Your task to perform on an android device: find snoozed emails in the gmail app Image 0: 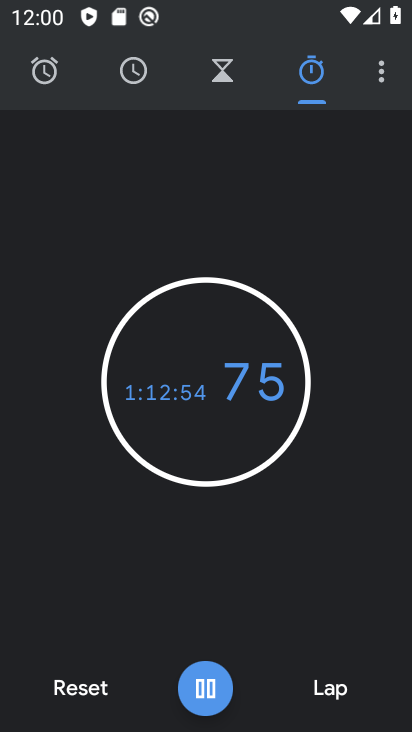
Step 0: press home button
Your task to perform on an android device: find snoozed emails in the gmail app Image 1: 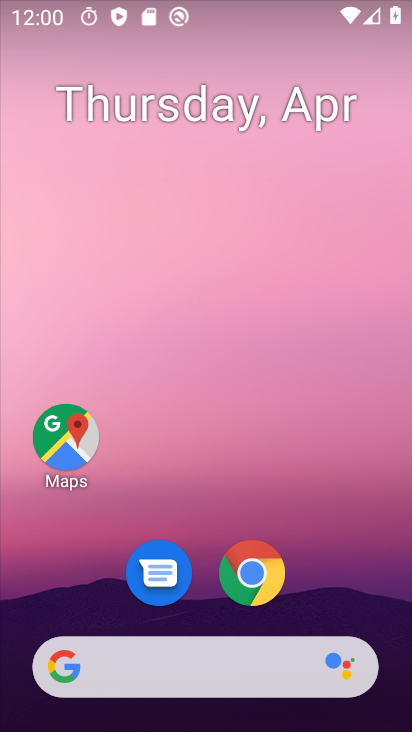
Step 1: click (313, 168)
Your task to perform on an android device: find snoozed emails in the gmail app Image 2: 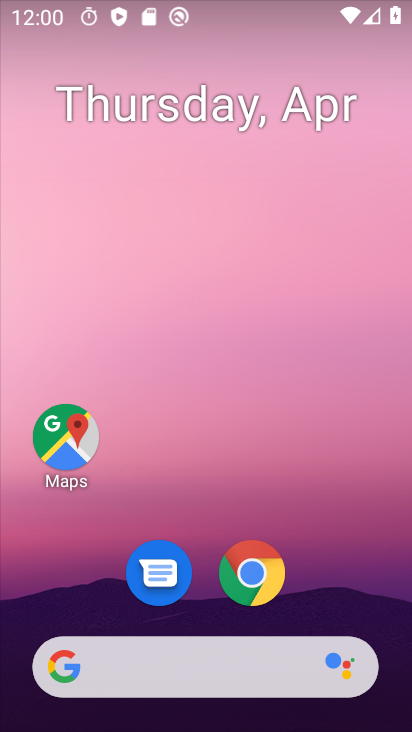
Step 2: drag from (370, 571) to (335, 247)
Your task to perform on an android device: find snoozed emails in the gmail app Image 3: 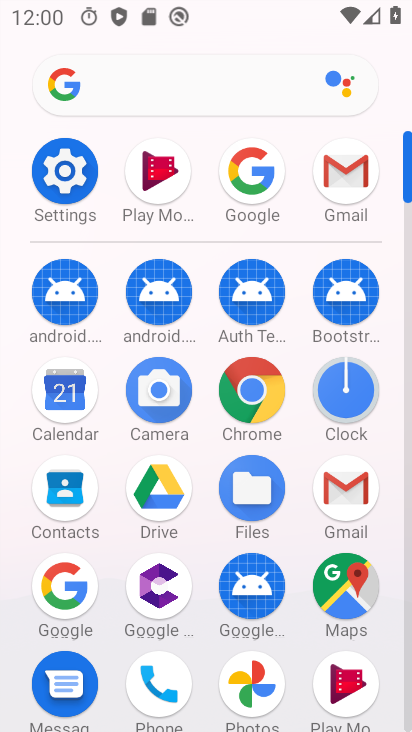
Step 3: click (328, 182)
Your task to perform on an android device: find snoozed emails in the gmail app Image 4: 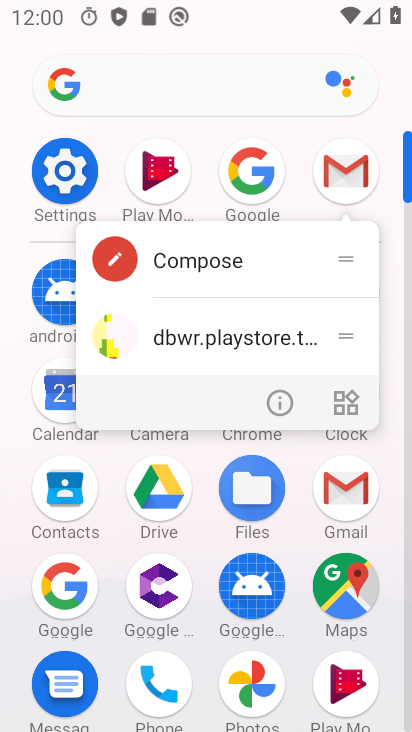
Step 4: click (329, 180)
Your task to perform on an android device: find snoozed emails in the gmail app Image 5: 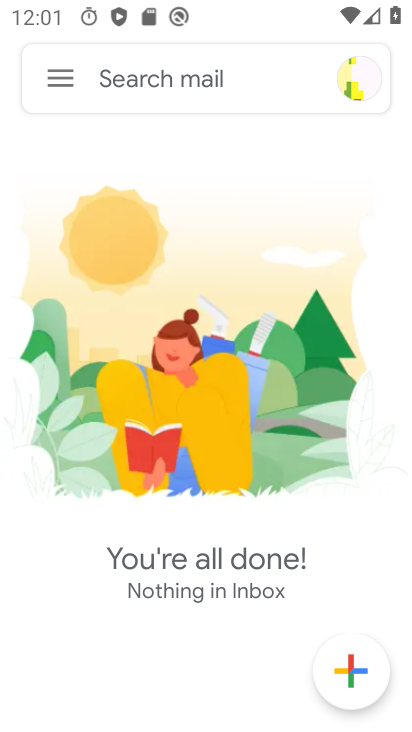
Step 5: click (60, 69)
Your task to perform on an android device: find snoozed emails in the gmail app Image 6: 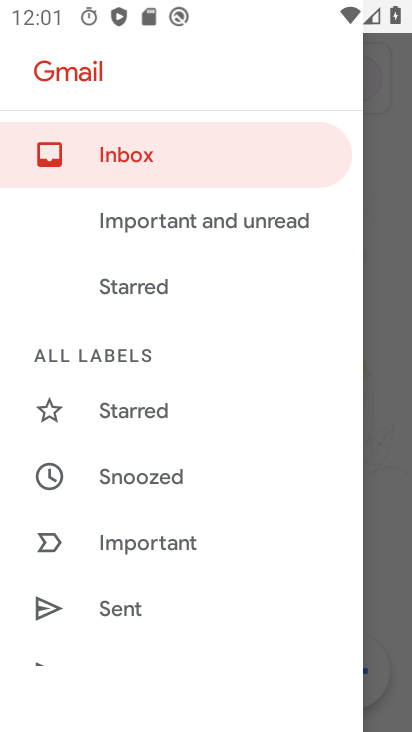
Step 6: click (114, 477)
Your task to perform on an android device: find snoozed emails in the gmail app Image 7: 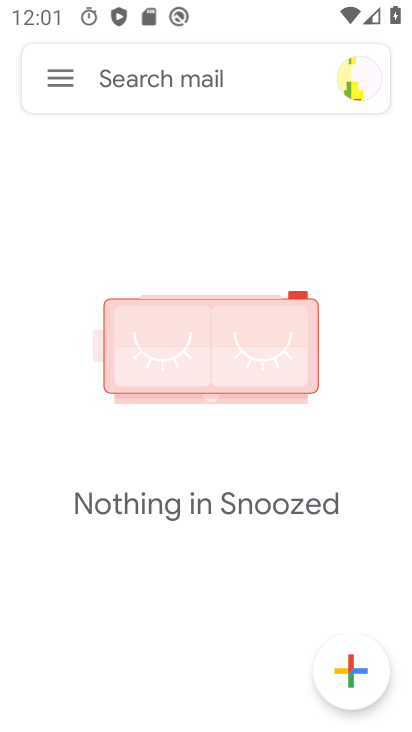
Step 7: task complete